Your task to perform on an android device: Go to Amazon Image 0: 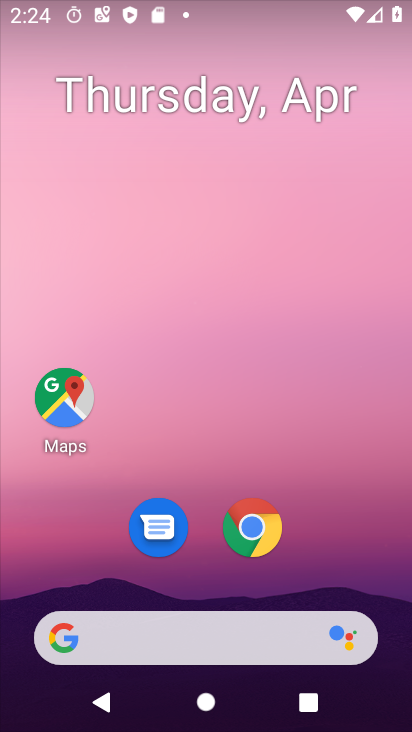
Step 0: click (253, 528)
Your task to perform on an android device: Go to Amazon Image 1: 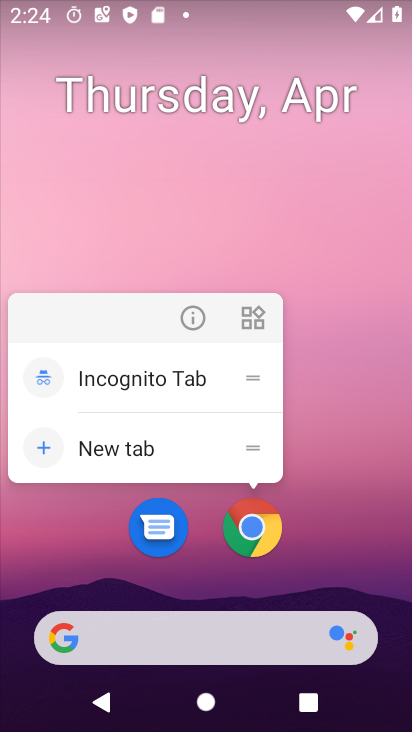
Step 1: click (254, 527)
Your task to perform on an android device: Go to Amazon Image 2: 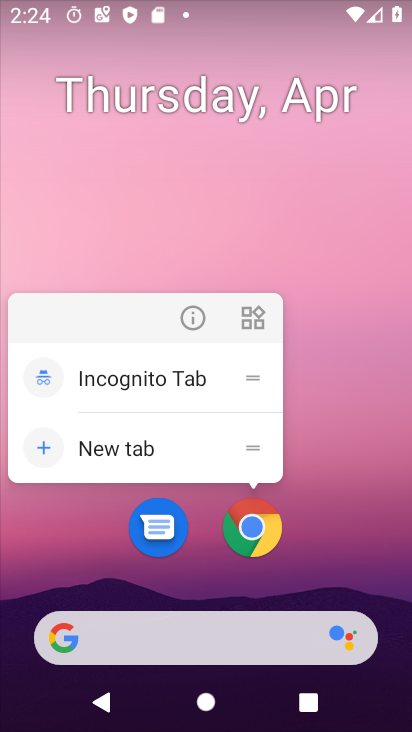
Step 2: click (239, 549)
Your task to perform on an android device: Go to Amazon Image 3: 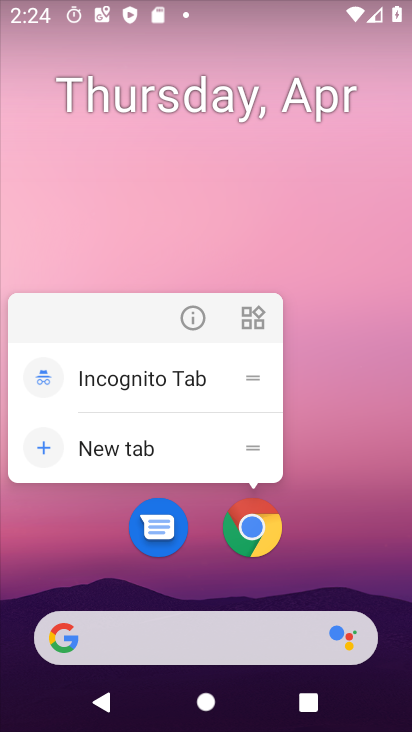
Step 3: click (248, 522)
Your task to perform on an android device: Go to Amazon Image 4: 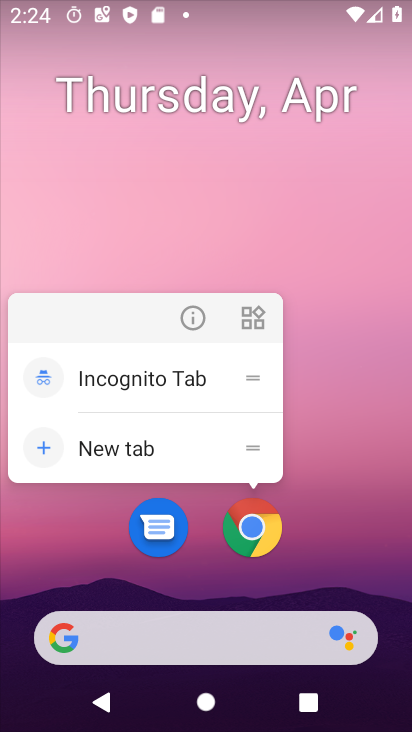
Step 4: click (262, 543)
Your task to perform on an android device: Go to Amazon Image 5: 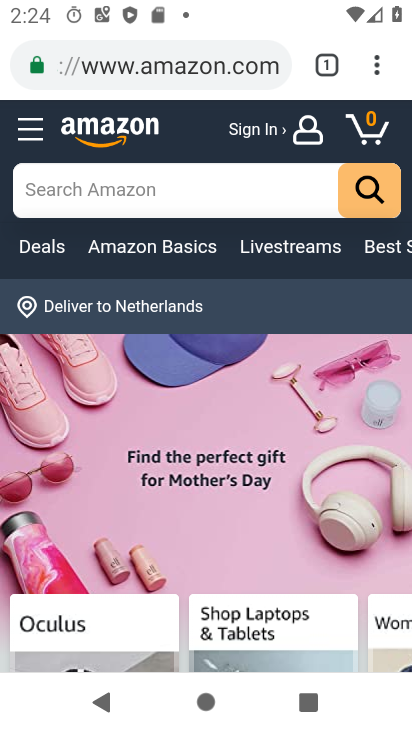
Step 5: click (265, 541)
Your task to perform on an android device: Go to Amazon Image 6: 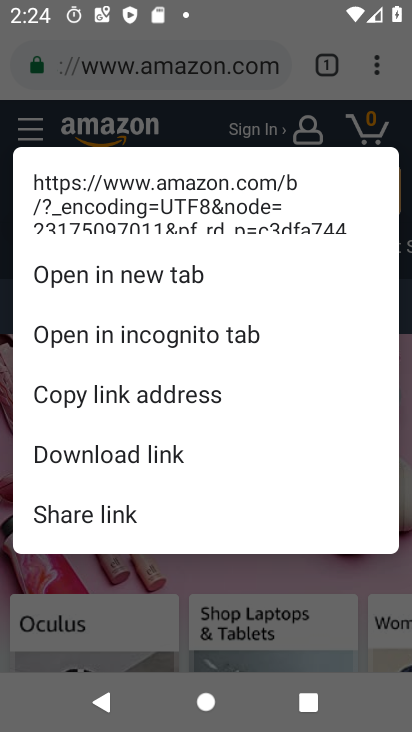
Step 6: click (250, 81)
Your task to perform on an android device: Go to Amazon Image 7: 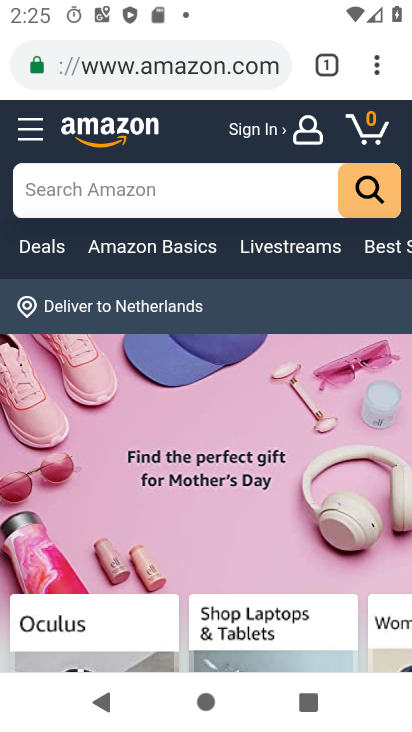
Step 7: task complete